Your task to perform on an android device: open app "Lyft - Rideshare, Bikes, Scooters & Transit" Image 0: 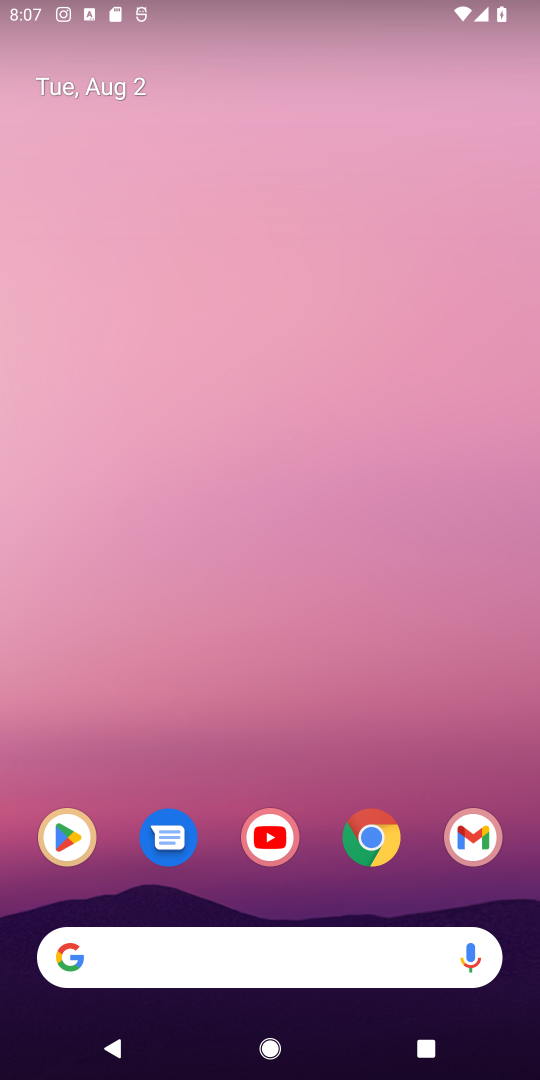
Step 0: click (72, 837)
Your task to perform on an android device: open app "Lyft - Rideshare, Bikes, Scooters & Transit" Image 1: 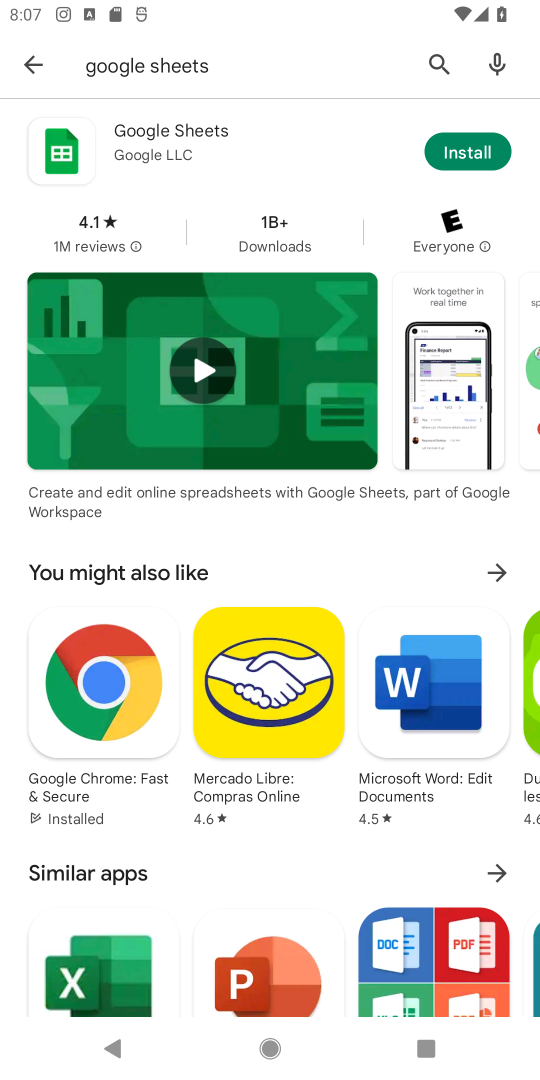
Step 1: click (430, 70)
Your task to perform on an android device: open app "Lyft - Rideshare, Bikes, Scooters & Transit" Image 2: 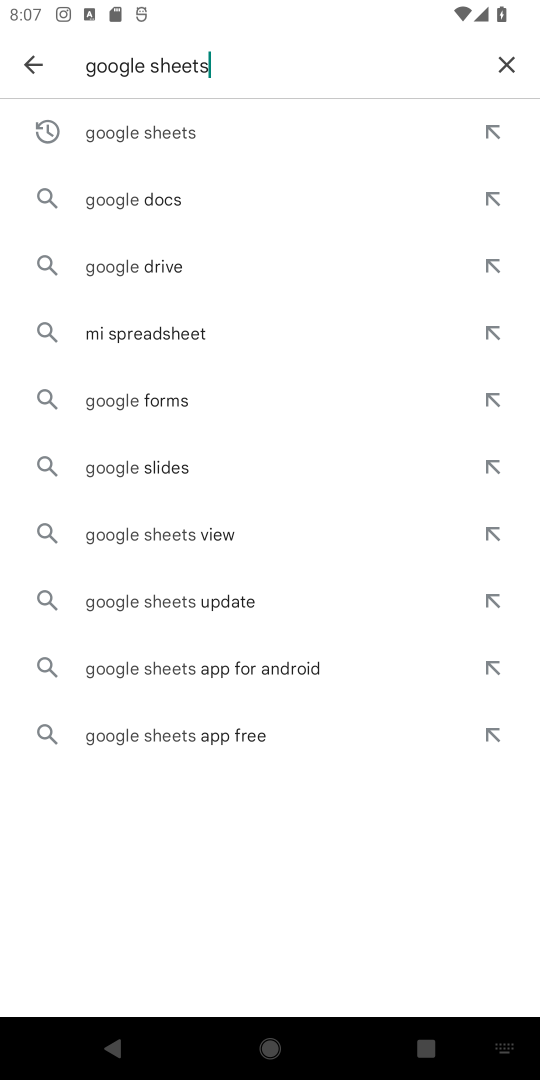
Step 2: click (496, 66)
Your task to perform on an android device: open app "Lyft - Rideshare, Bikes, Scooters & Transit" Image 3: 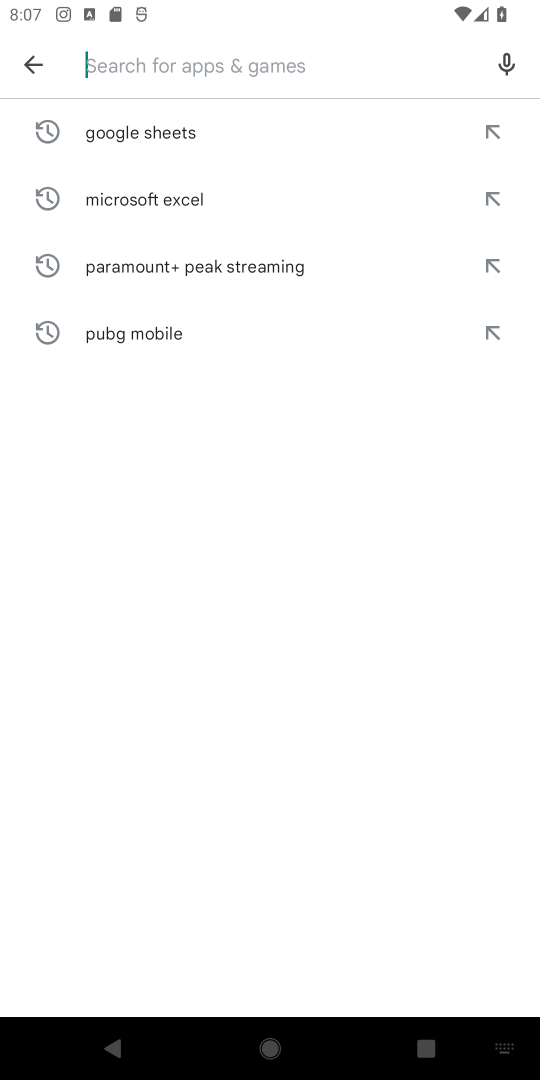
Step 3: type "Lyft - Rideshare, Bikes, Scooters & Transit"
Your task to perform on an android device: open app "Lyft - Rideshare, Bikes, Scooters & Transit" Image 4: 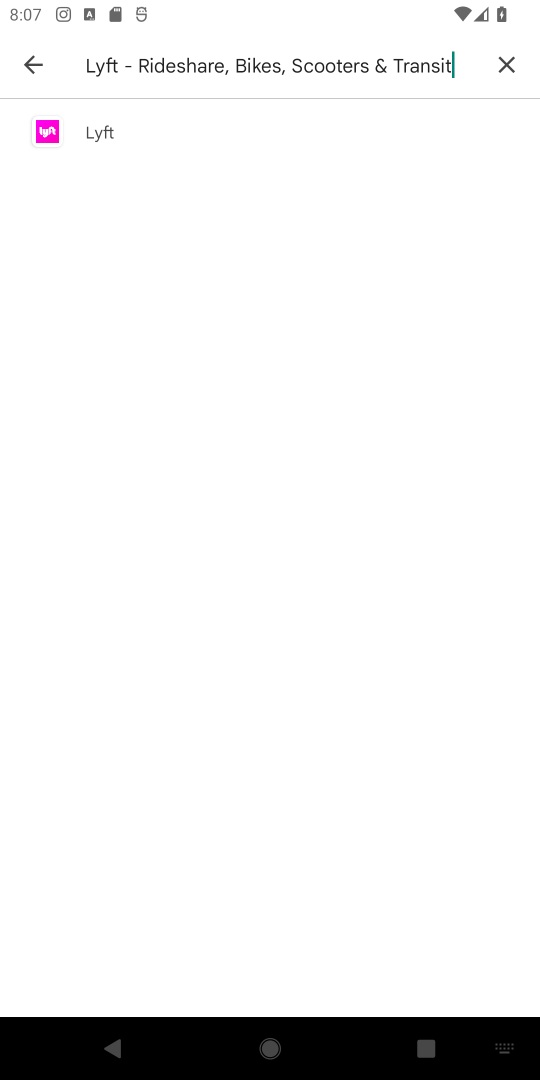
Step 4: click (110, 137)
Your task to perform on an android device: open app "Lyft - Rideshare, Bikes, Scooters & Transit" Image 5: 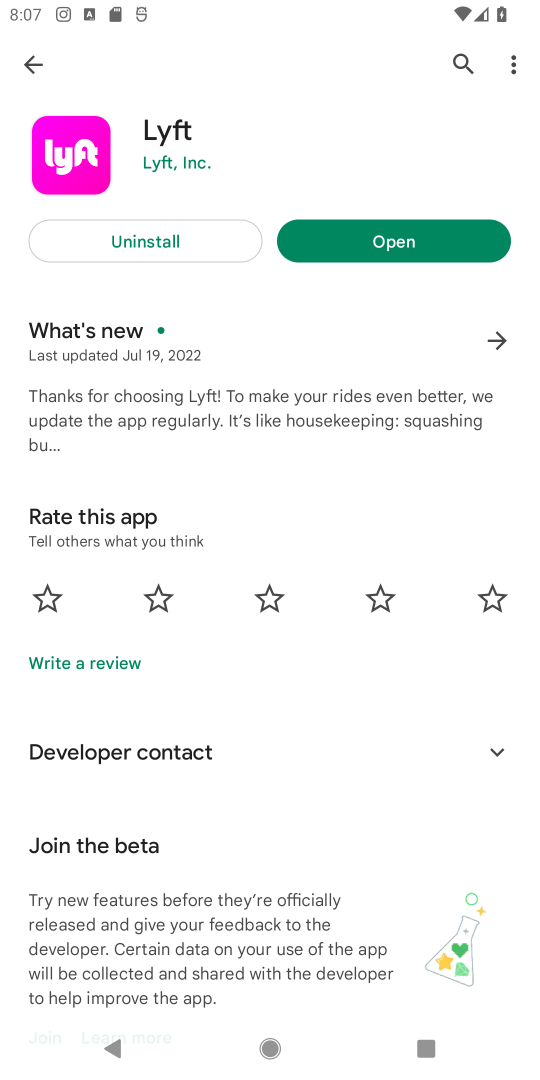
Step 5: click (362, 241)
Your task to perform on an android device: open app "Lyft - Rideshare, Bikes, Scooters & Transit" Image 6: 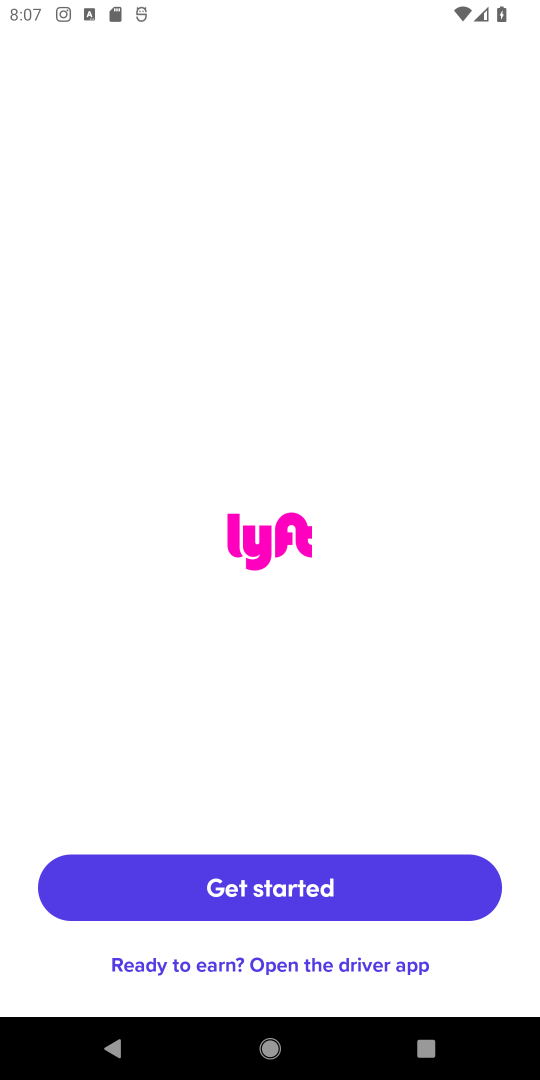
Step 6: task complete